Your task to perform on an android device: Go to Maps Image 0: 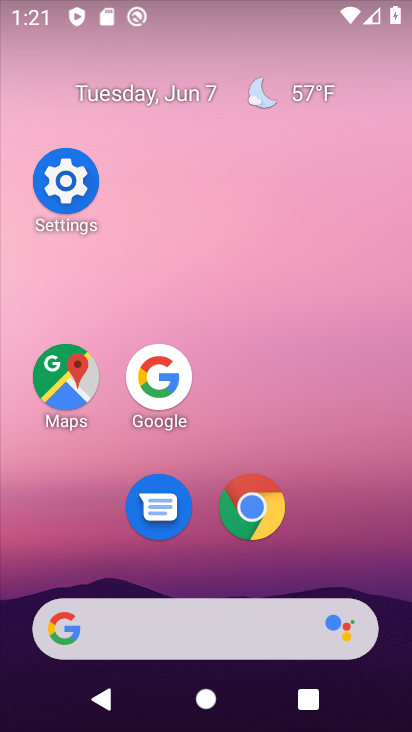
Step 0: click (77, 370)
Your task to perform on an android device: Go to Maps Image 1: 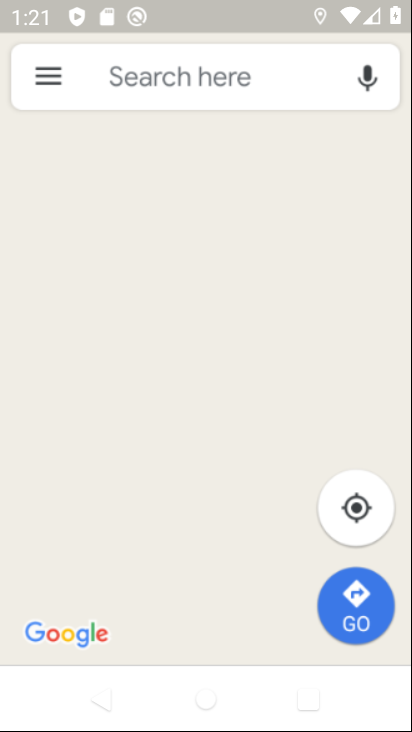
Step 1: task complete